Your task to perform on an android device: Is it going to rain today? Image 0: 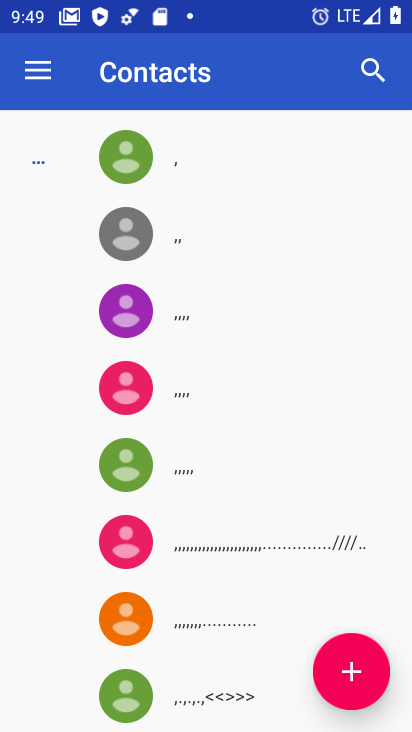
Step 0: press home button
Your task to perform on an android device: Is it going to rain today? Image 1: 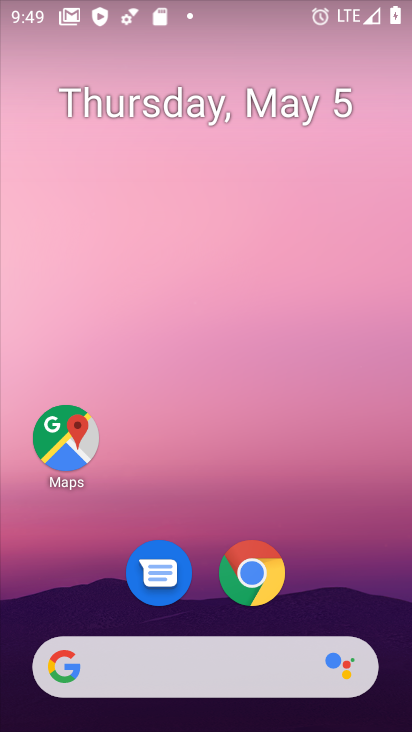
Step 1: click (137, 661)
Your task to perform on an android device: Is it going to rain today? Image 2: 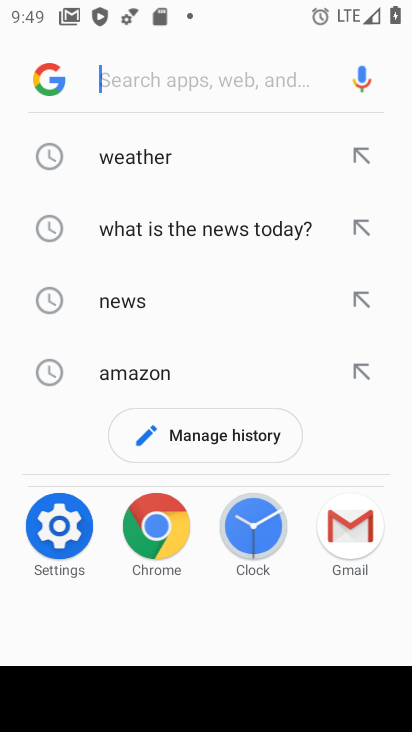
Step 2: click (152, 153)
Your task to perform on an android device: Is it going to rain today? Image 3: 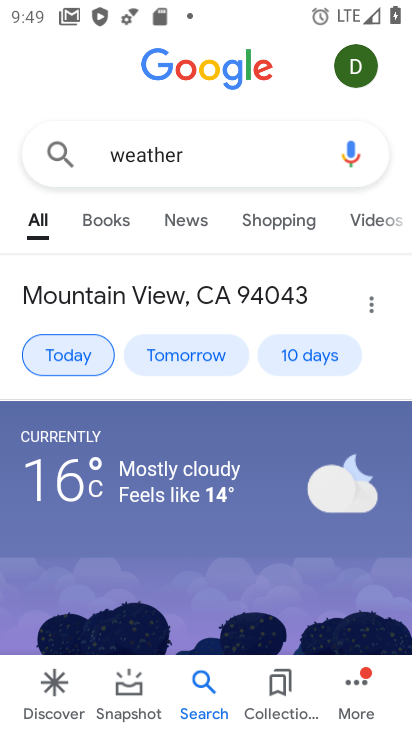
Step 3: task complete